Your task to perform on an android device: change notification settings in the gmail app Image 0: 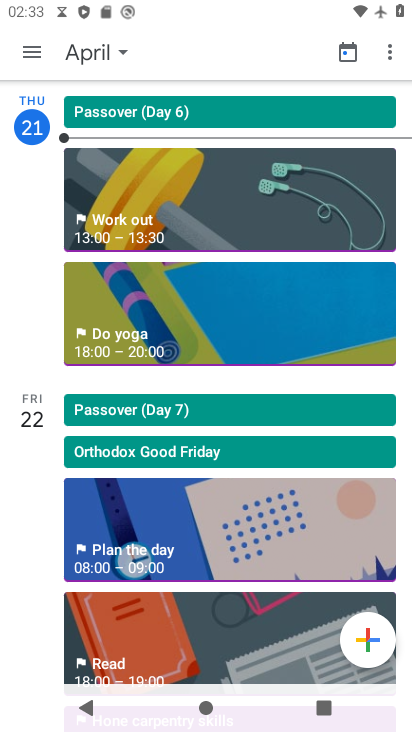
Step 0: press home button
Your task to perform on an android device: change notification settings in the gmail app Image 1: 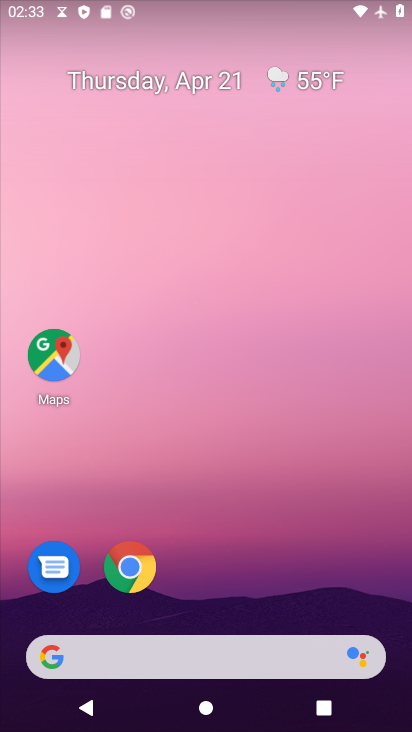
Step 1: drag from (175, 602) to (298, 88)
Your task to perform on an android device: change notification settings in the gmail app Image 2: 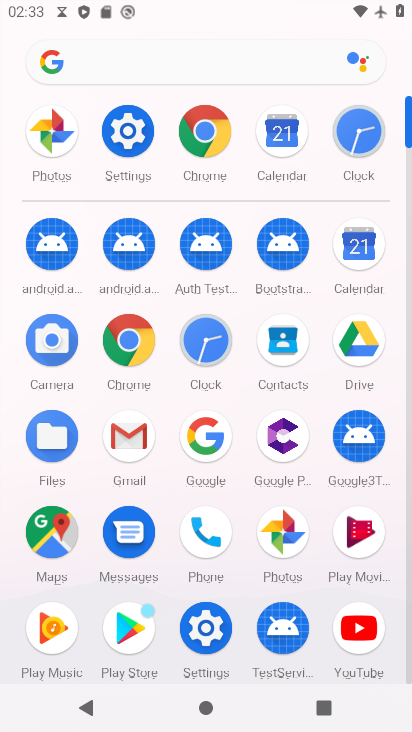
Step 2: click (133, 451)
Your task to perform on an android device: change notification settings in the gmail app Image 3: 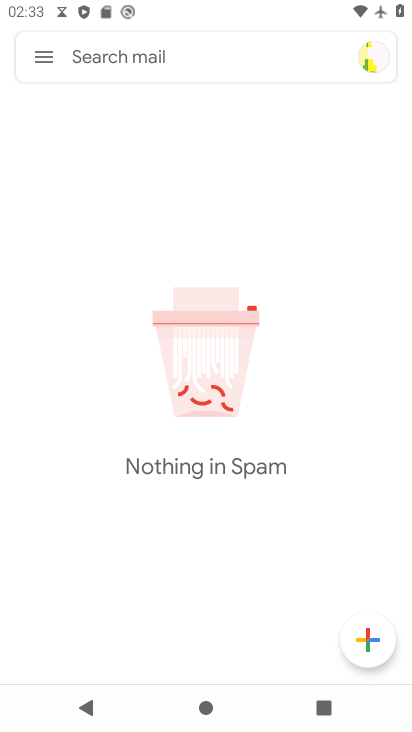
Step 3: click (46, 60)
Your task to perform on an android device: change notification settings in the gmail app Image 4: 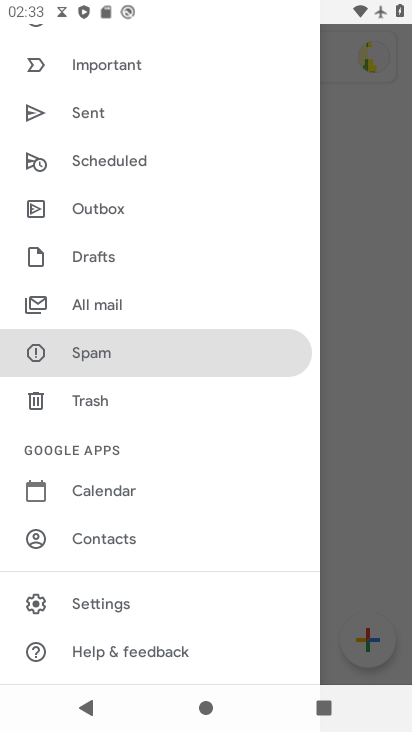
Step 4: click (106, 600)
Your task to perform on an android device: change notification settings in the gmail app Image 5: 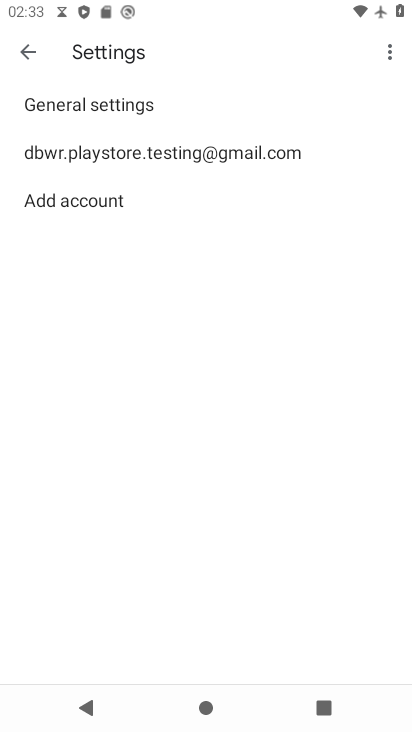
Step 5: click (204, 150)
Your task to perform on an android device: change notification settings in the gmail app Image 6: 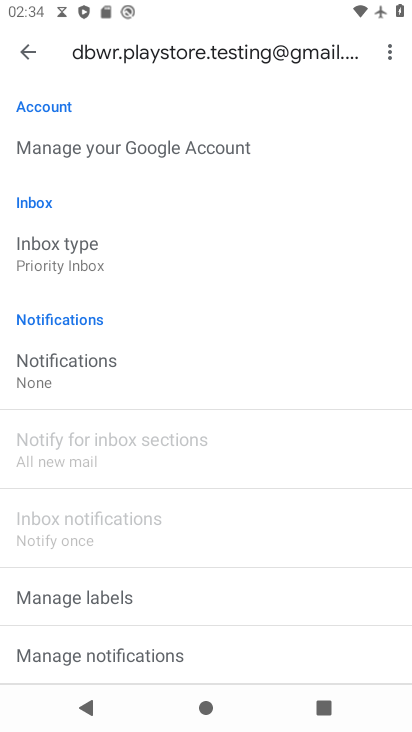
Step 6: click (86, 376)
Your task to perform on an android device: change notification settings in the gmail app Image 7: 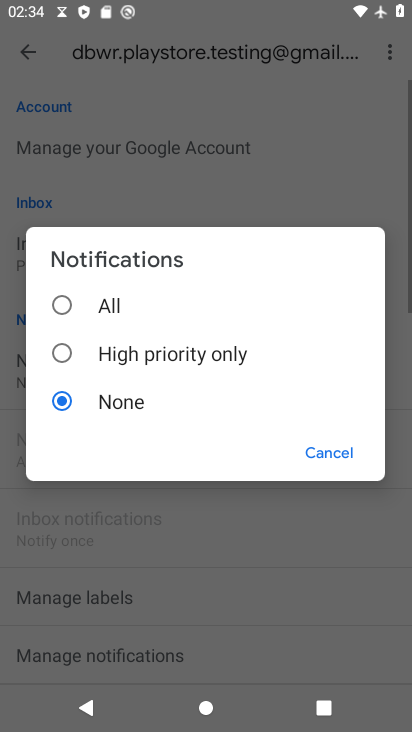
Step 7: click (65, 295)
Your task to perform on an android device: change notification settings in the gmail app Image 8: 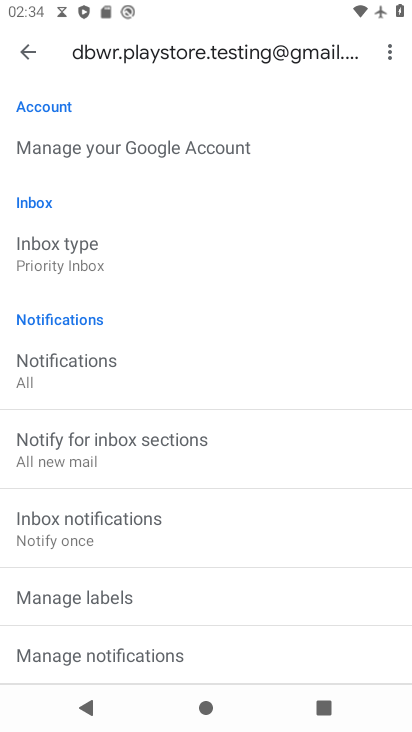
Step 8: task complete